Your task to perform on an android device: Play the last video I watched on Youtube Image 0: 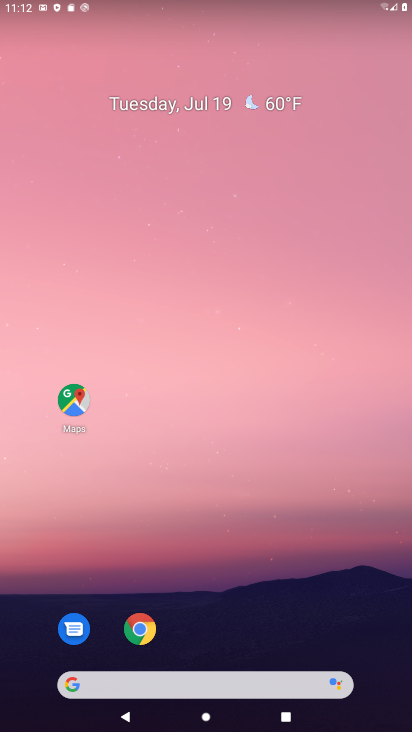
Step 0: drag from (245, 629) to (279, 6)
Your task to perform on an android device: Play the last video I watched on Youtube Image 1: 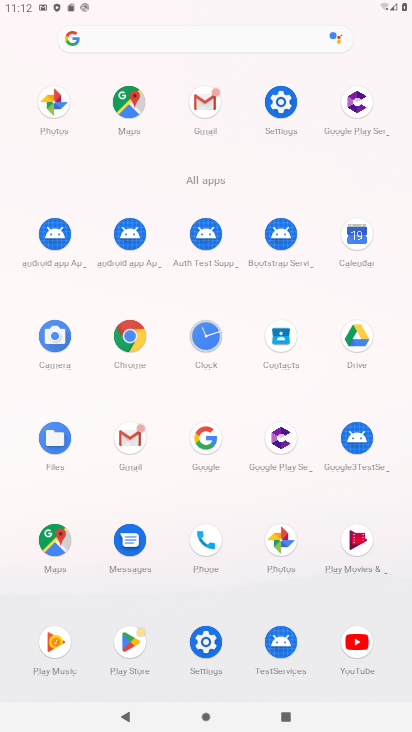
Step 1: click (360, 641)
Your task to perform on an android device: Play the last video I watched on Youtube Image 2: 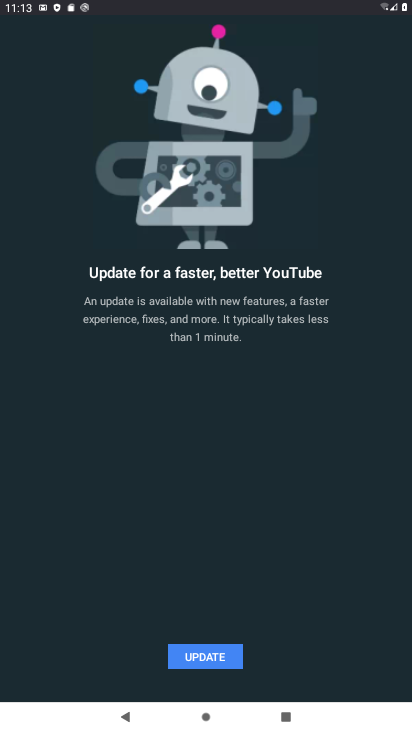
Step 2: click (209, 648)
Your task to perform on an android device: Play the last video I watched on Youtube Image 3: 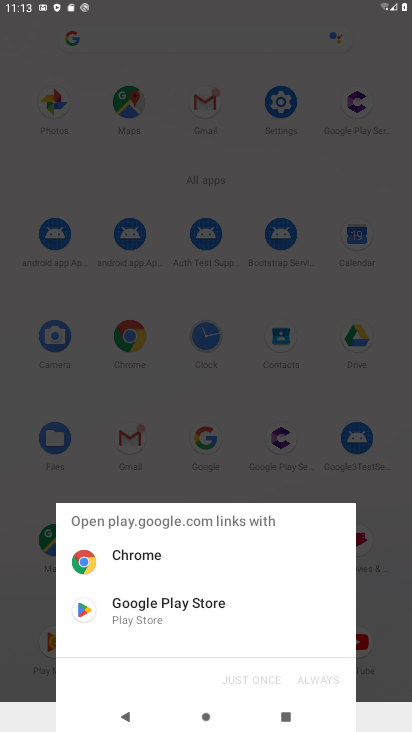
Step 3: click (156, 632)
Your task to perform on an android device: Play the last video I watched on Youtube Image 4: 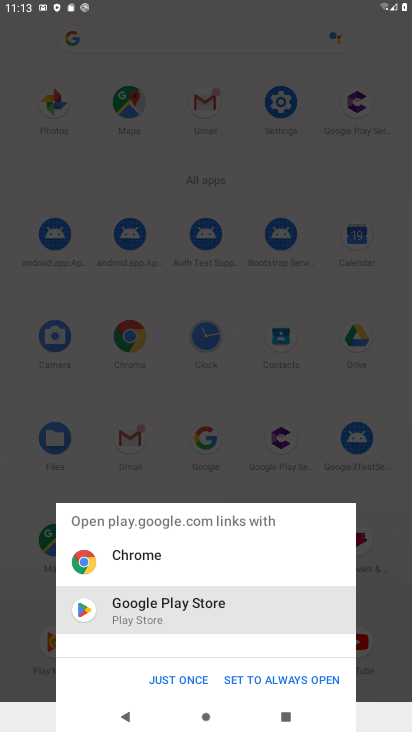
Step 4: click (193, 680)
Your task to perform on an android device: Play the last video I watched on Youtube Image 5: 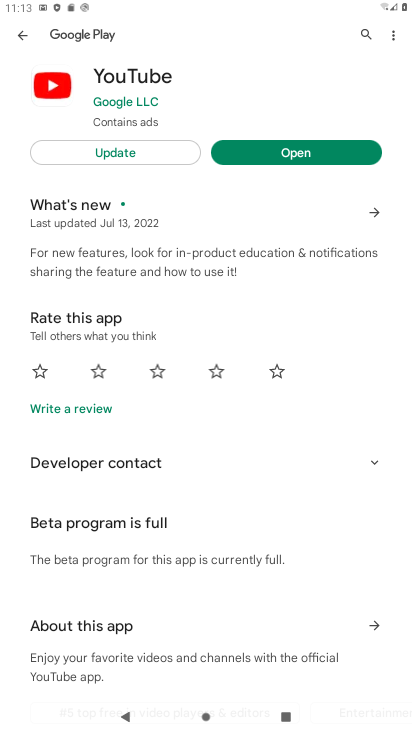
Step 5: click (130, 147)
Your task to perform on an android device: Play the last video I watched on Youtube Image 6: 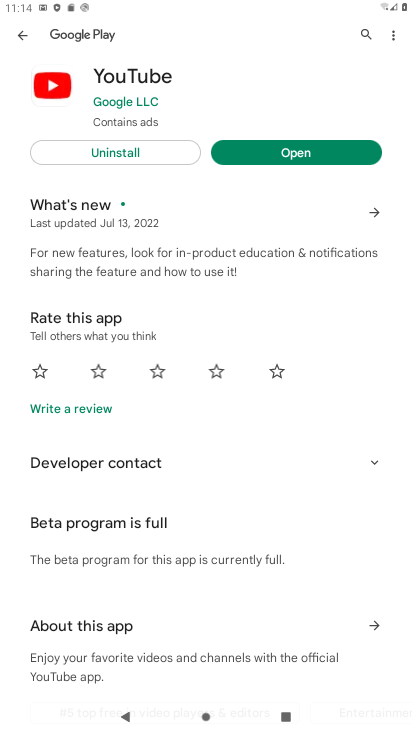
Step 6: click (288, 155)
Your task to perform on an android device: Play the last video I watched on Youtube Image 7: 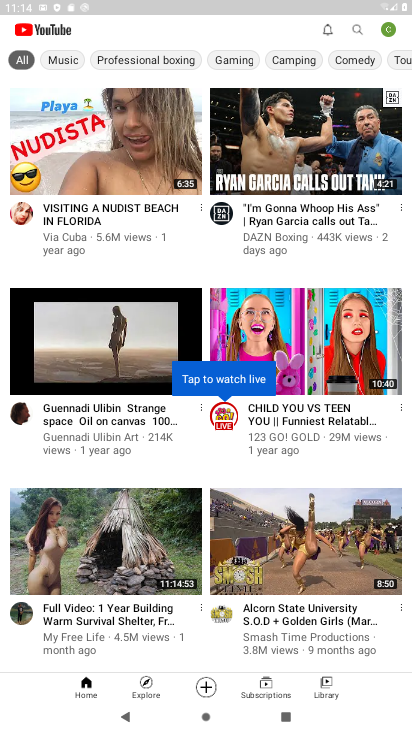
Step 7: click (326, 686)
Your task to perform on an android device: Play the last video I watched on Youtube Image 8: 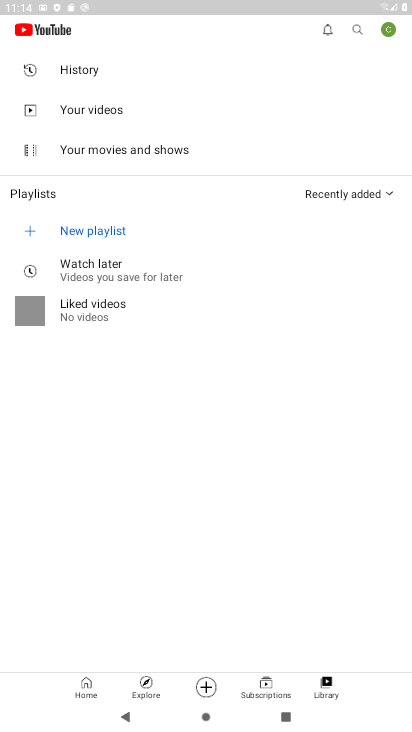
Step 8: click (87, 70)
Your task to perform on an android device: Play the last video I watched on Youtube Image 9: 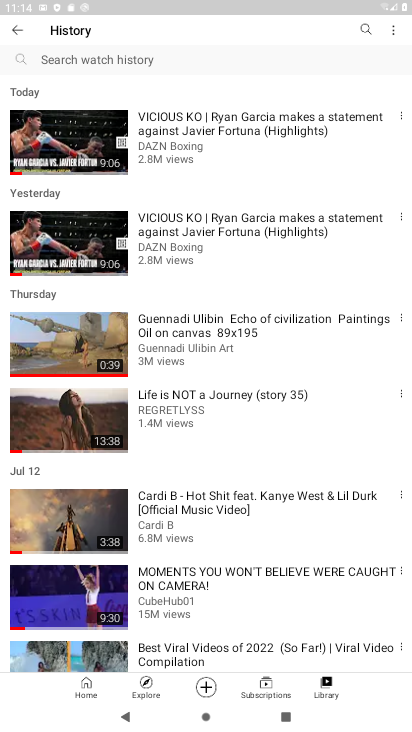
Step 9: click (96, 146)
Your task to perform on an android device: Play the last video I watched on Youtube Image 10: 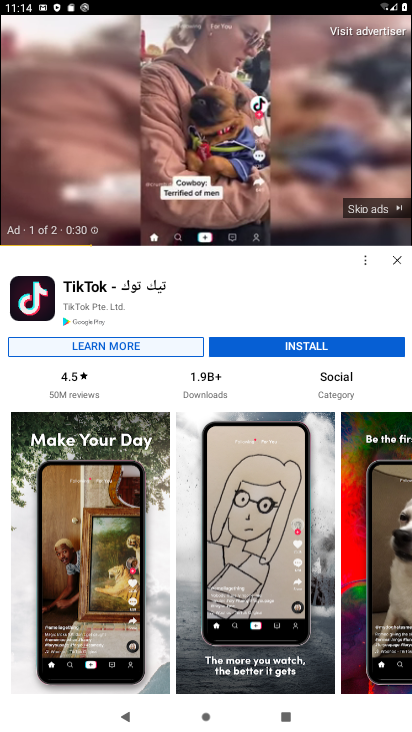
Step 10: task complete